Your task to perform on an android device: see sites visited before in the chrome app Image 0: 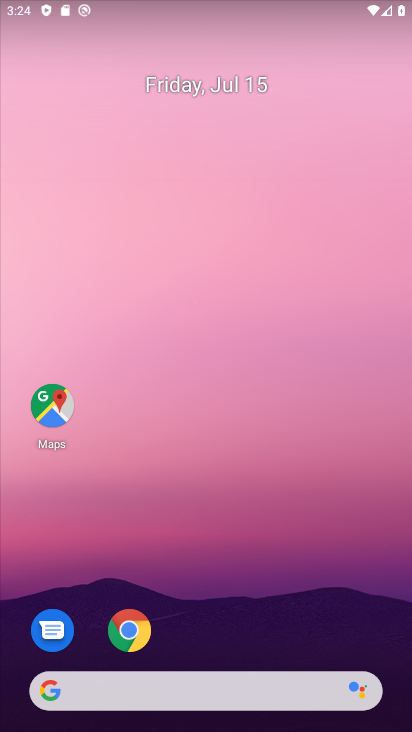
Step 0: drag from (250, 648) to (234, 112)
Your task to perform on an android device: see sites visited before in the chrome app Image 1: 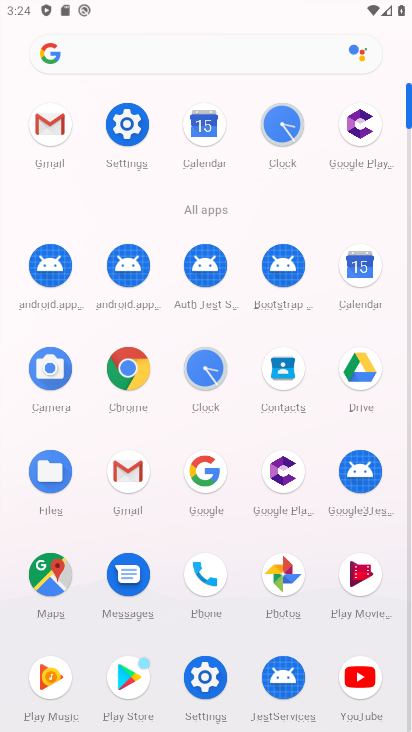
Step 1: click (136, 374)
Your task to perform on an android device: see sites visited before in the chrome app Image 2: 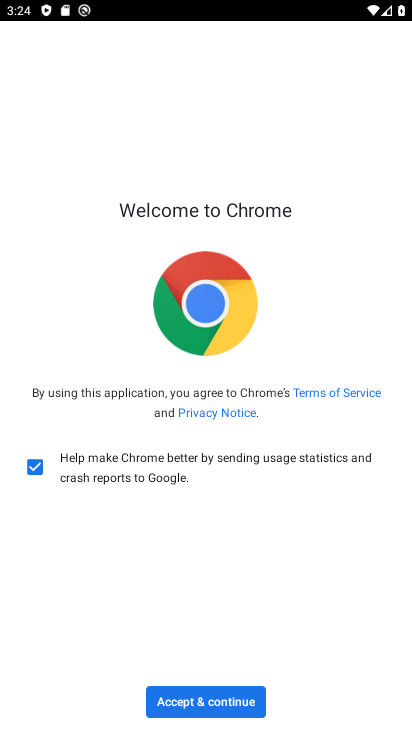
Step 2: click (226, 698)
Your task to perform on an android device: see sites visited before in the chrome app Image 3: 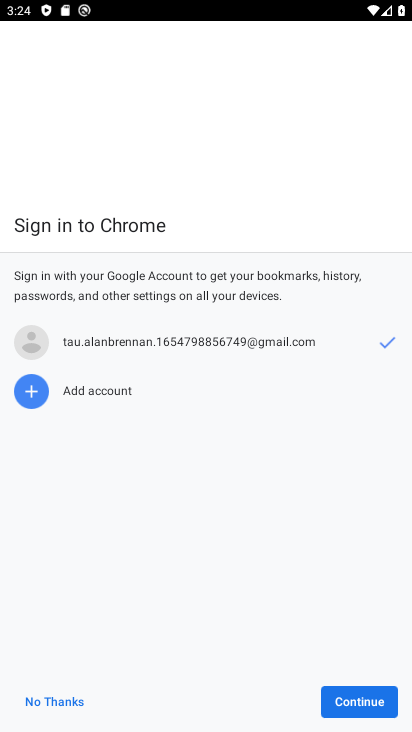
Step 3: click (361, 706)
Your task to perform on an android device: see sites visited before in the chrome app Image 4: 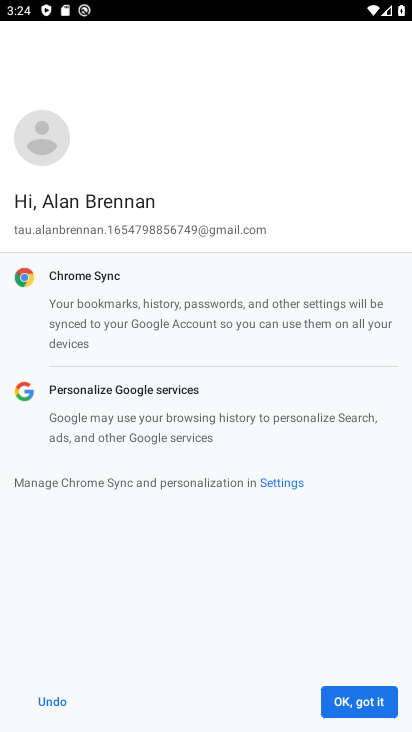
Step 4: click (374, 693)
Your task to perform on an android device: see sites visited before in the chrome app Image 5: 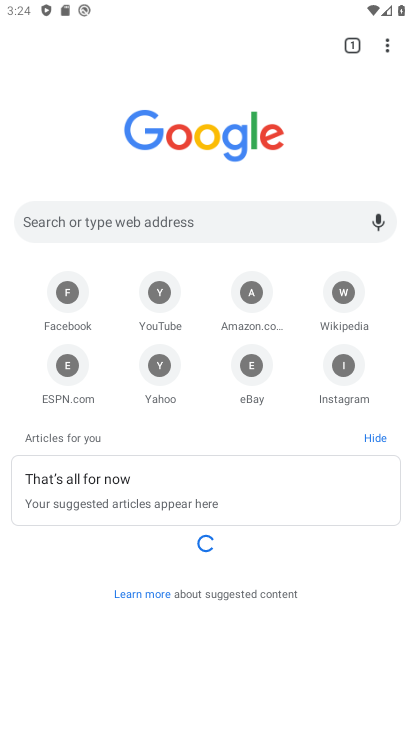
Step 5: click (389, 45)
Your task to perform on an android device: see sites visited before in the chrome app Image 6: 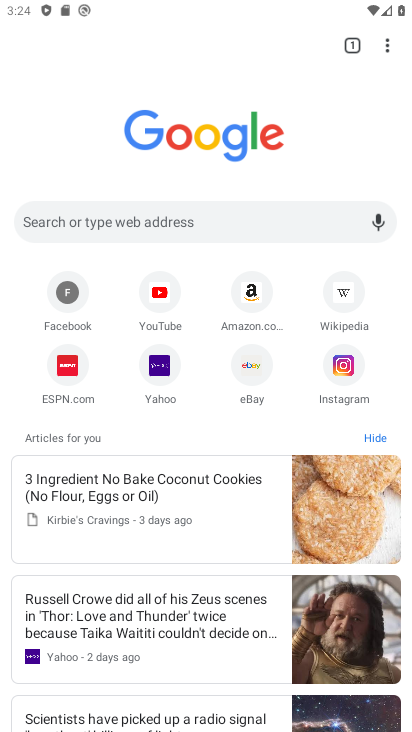
Step 6: task complete